Your task to perform on an android device: Is it going to rain today? Image 0: 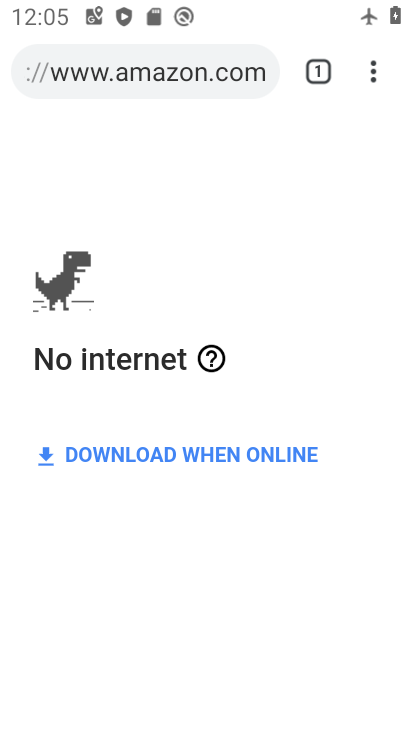
Step 0: press home button
Your task to perform on an android device: Is it going to rain today? Image 1: 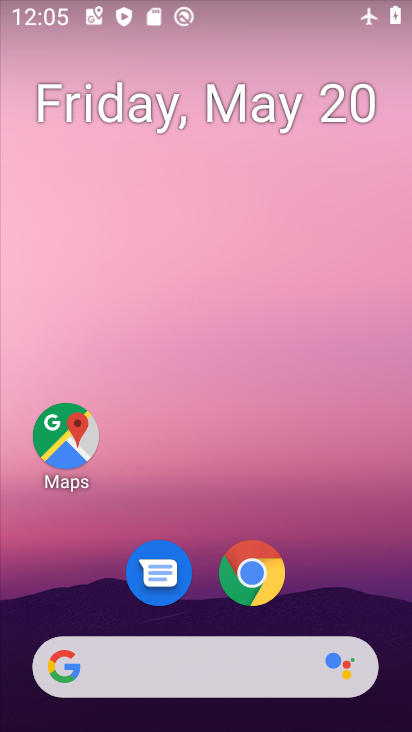
Step 1: drag from (216, 418) to (226, 36)
Your task to perform on an android device: Is it going to rain today? Image 2: 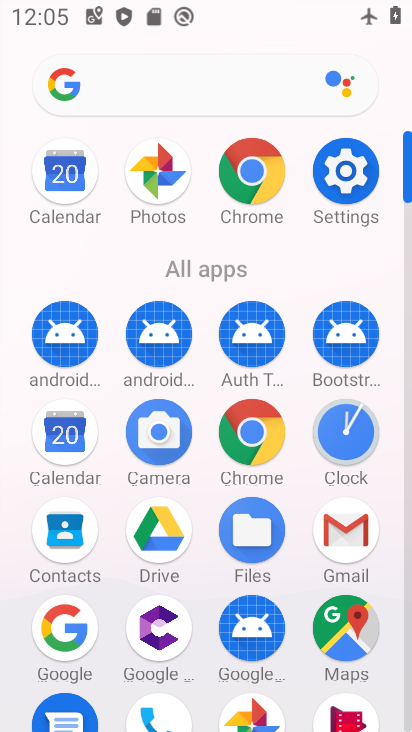
Step 2: click (68, 633)
Your task to perform on an android device: Is it going to rain today? Image 3: 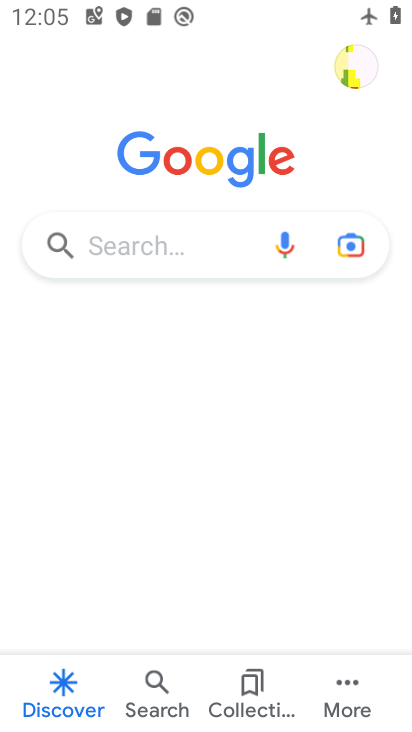
Step 3: click (164, 257)
Your task to perform on an android device: Is it going to rain today? Image 4: 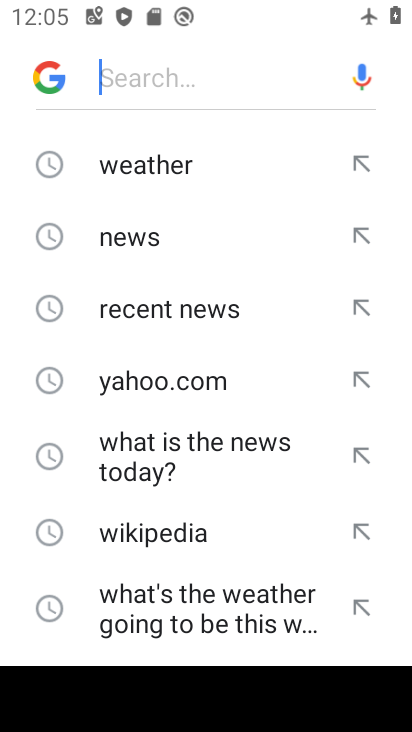
Step 4: type "is it going to rain today"
Your task to perform on an android device: Is it going to rain today? Image 5: 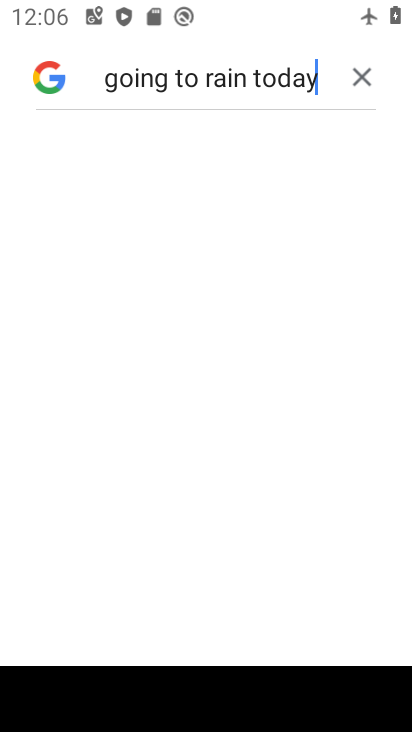
Step 5: task complete